Your task to perform on an android device: change notifications settings Image 0: 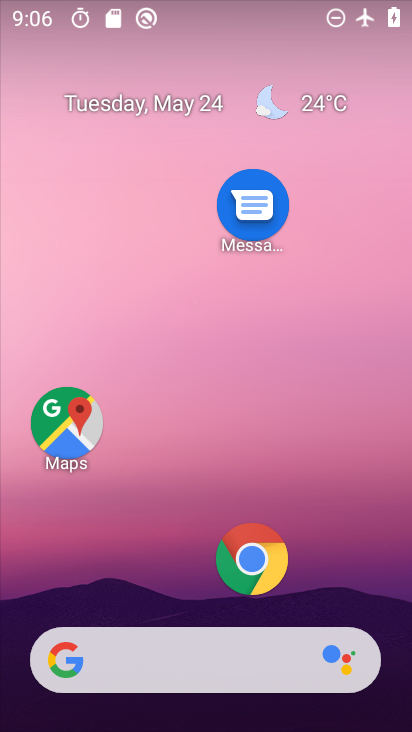
Step 0: drag from (173, 594) to (125, 205)
Your task to perform on an android device: change notifications settings Image 1: 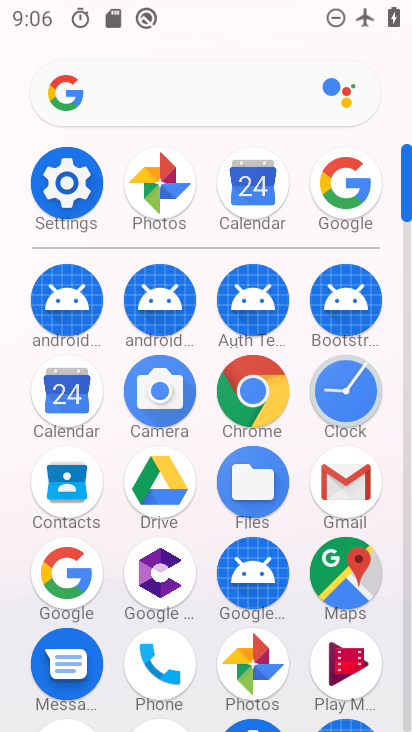
Step 1: click (53, 183)
Your task to perform on an android device: change notifications settings Image 2: 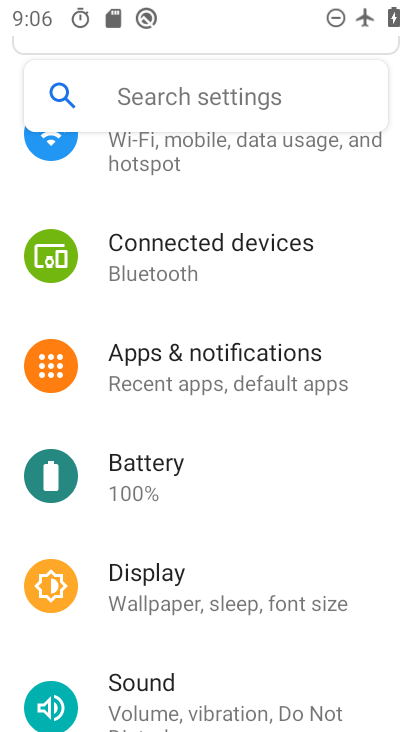
Step 2: click (244, 376)
Your task to perform on an android device: change notifications settings Image 3: 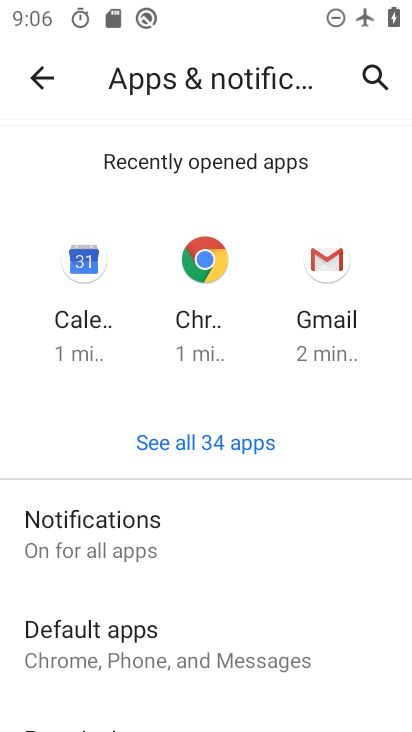
Step 3: click (200, 533)
Your task to perform on an android device: change notifications settings Image 4: 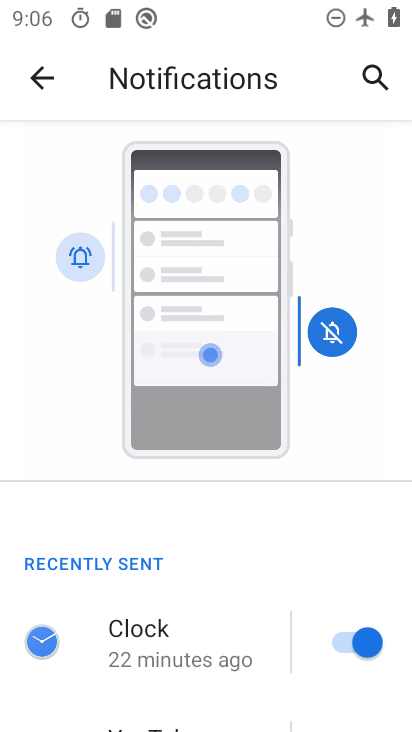
Step 4: drag from (207, 651) to (176, 225)
Your task to perform on an android device: change notifications settings Image 5: 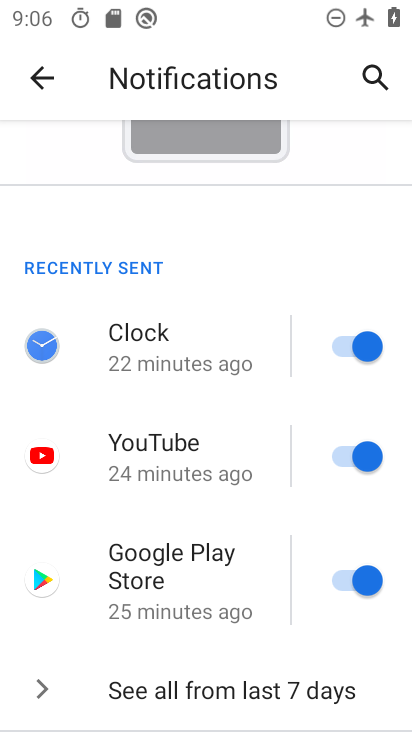
Step 5: drag from (263, 649) to (225, 400)
Your task to perform on an android device: change notifications settings Image 6: 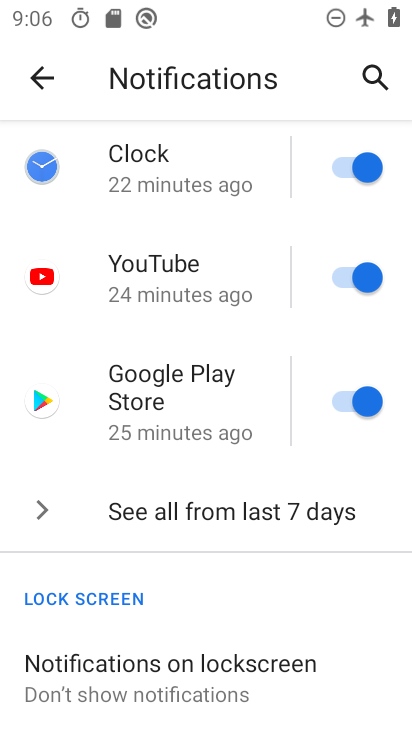
Step 6: click (202, 701)
Your task to perform on an android device: change notifications settings Image 7: 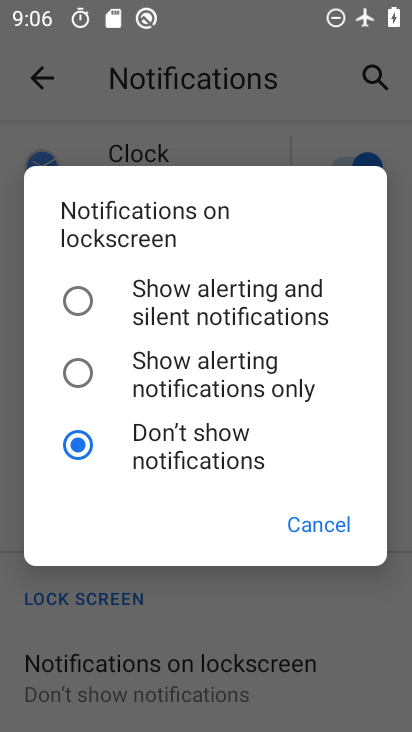
Step 7: click (195, 308)
Your task to perform on an android device: change notifications settings Image 8: 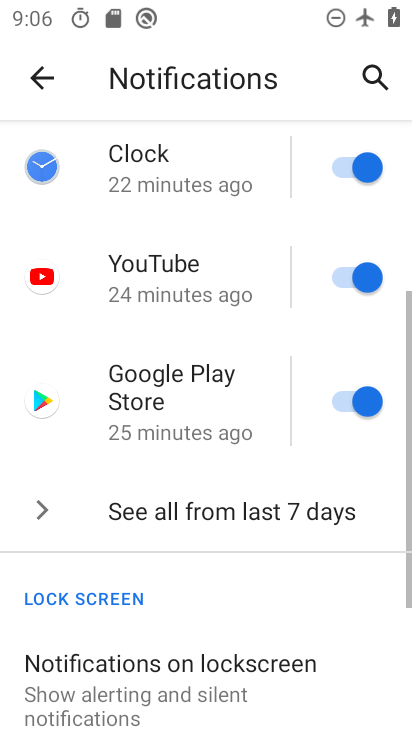
Step 8: task complete